Your task to perform on an android device: toggle improve location accuracy Image 0: 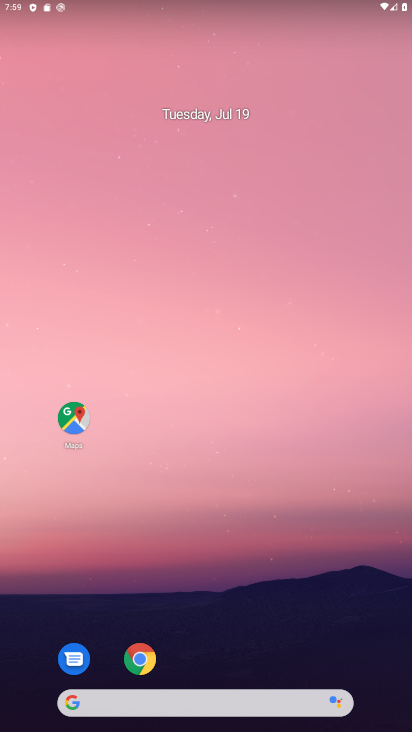
Step 0: drag from (224, 618) to (407, 64)
Your task to perform on an android device: toggle improve location accuracy Image 1: 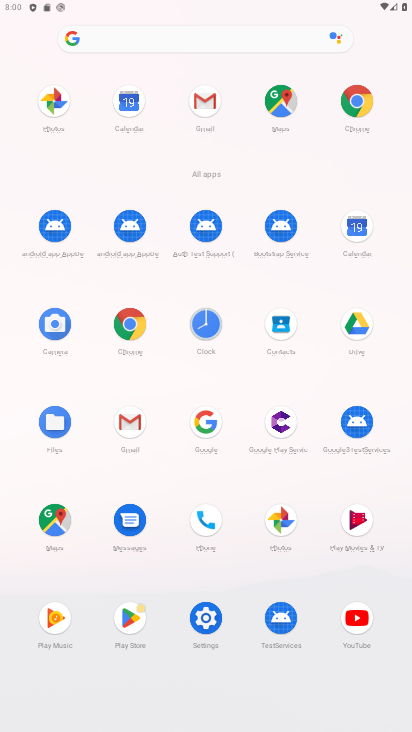
Step 1: click (212, 623)
Your task to perform on an android device: toggle improve location accuracy Image 2: 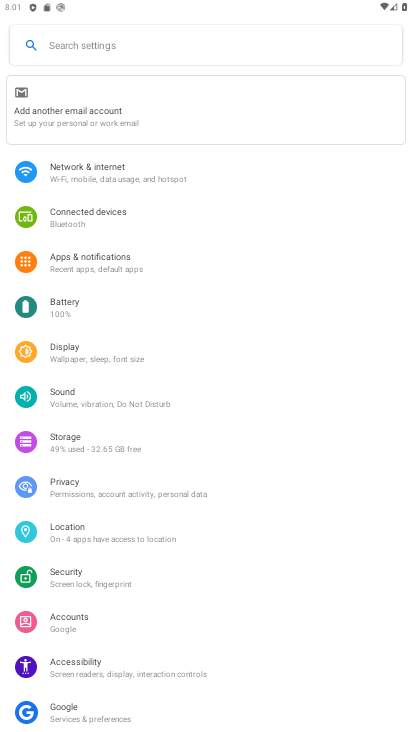
Step 2: drag from (149, 571) to (157, 367)
Your task to perform on an android device: toggle improve location accuracy Image 3: 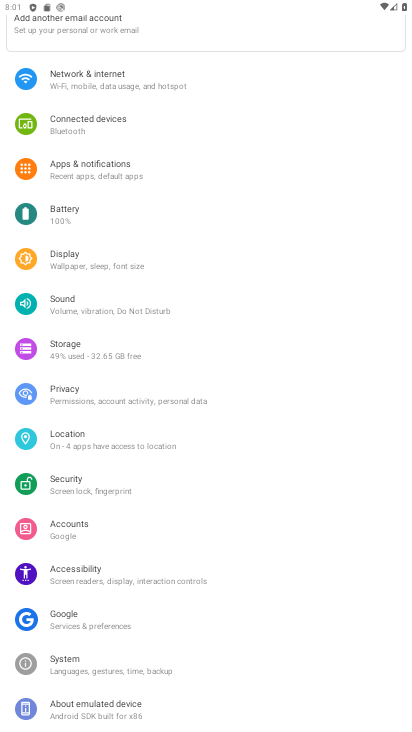
Step 3: click (56, 436)
Your task to perform on an android device: toggle improve location accuracy Image 4: 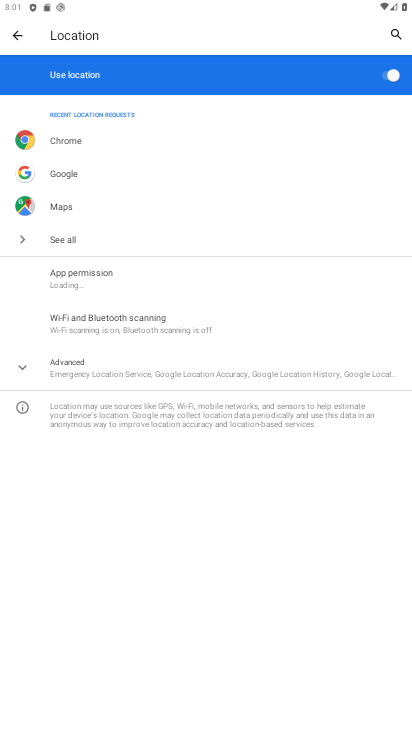
Step 4: click (140, 362)
Your task to perform on an android device: toggle improve location accuracy Image 5: 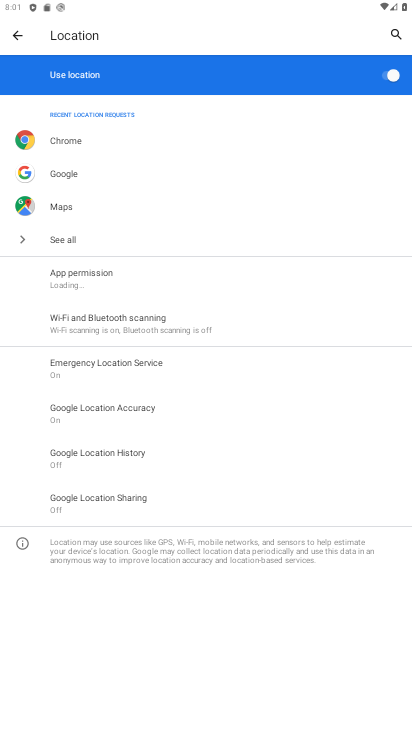
Step 5: click (128, 413)
Your task to perform on an android device: toggle improve location accuracy Image 6: 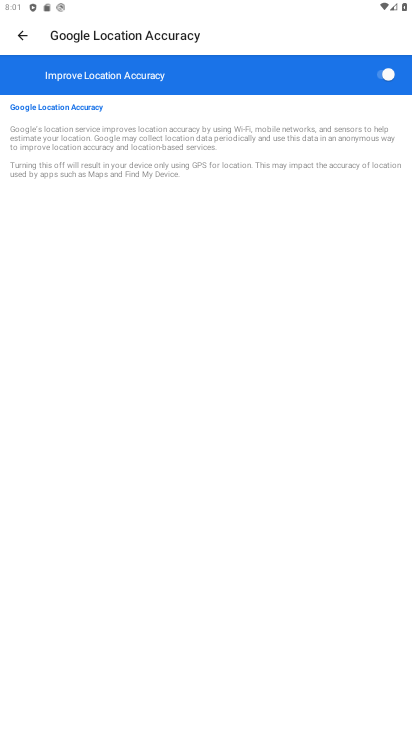
Step 6: click (311, 82)
Your task to perform on an android device: toggle improve location accuracy Image 7: 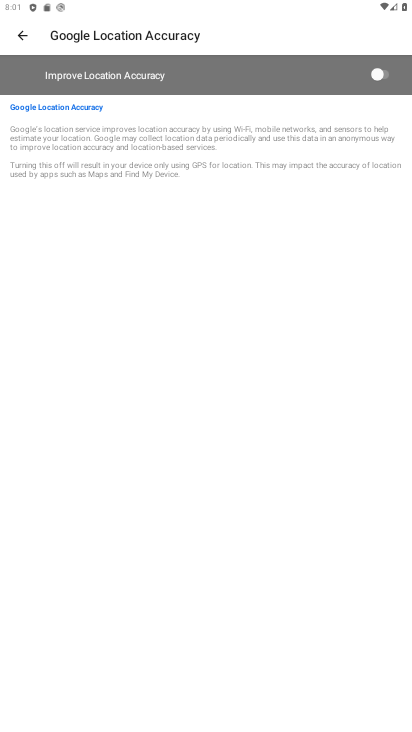
Step 7: task complete